Your task to perform on an android device: Open Google Chrome Image 0: 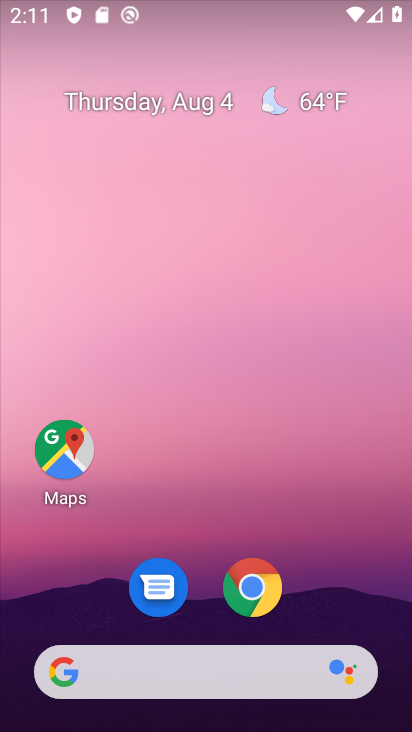
Step 0: click (255, 596)
Your task to perform on an android device: Open Google Chrome Image 1: 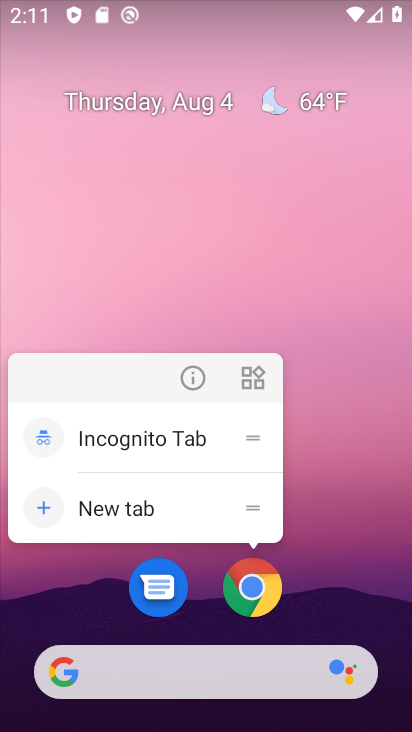
Step 1: click (255, 596)
Your task to perform on an android device: Open Google Chrome Image 2: 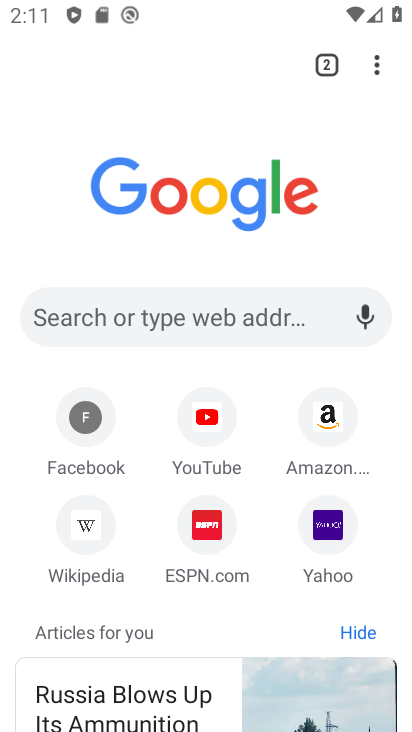
Step 2: task complete